Your task to perform on an android device: install app "Yahoo Mail" Image 0: 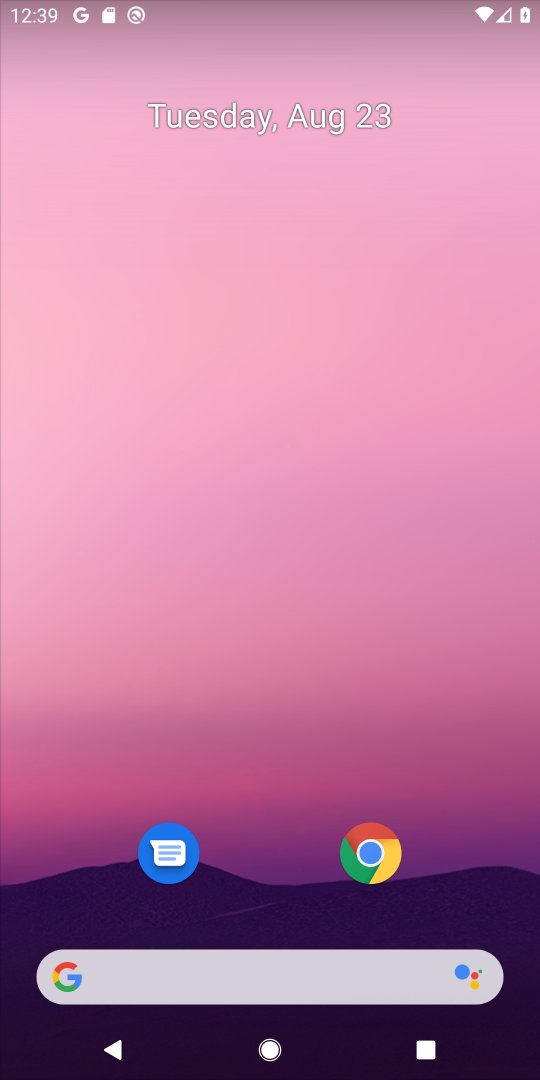
Step 0: drag from (479, 647) to (377, 81)
Your task to perform on an android device: install app "Yahoo Mail" Image 1: 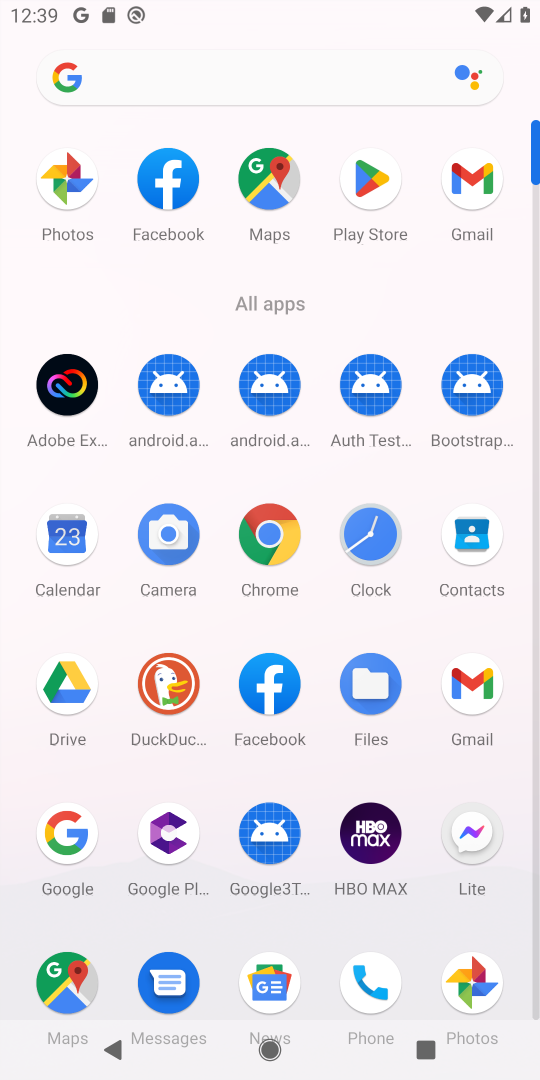
Step 1: drag from (317, 927) to (328, 442)
Your task to perform on an android device: install app "Yahoo Mail" Image 2: 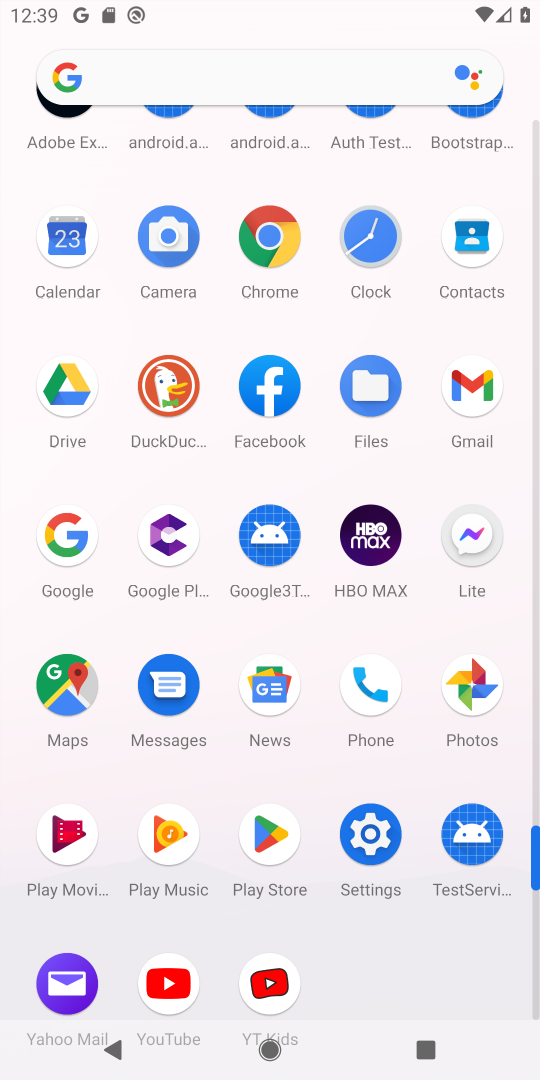
Step 2: click (270, 832)
Your task to perform on an android device: install app "Yahoo Mail" Image 3: 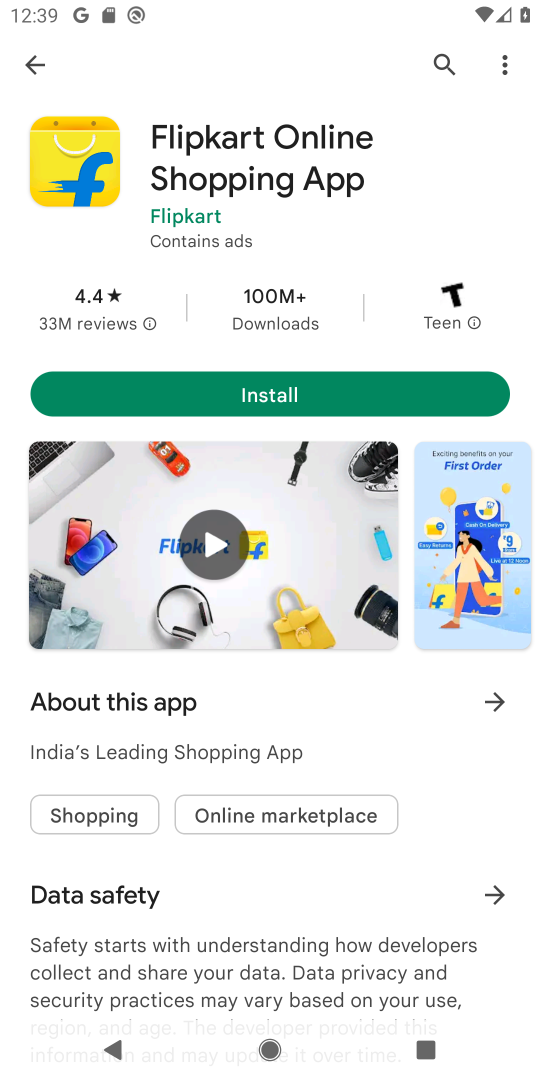
Step 3: click (441, 58)
Your task to perform on an android device: install app "Yahoo Mail" Image 4: 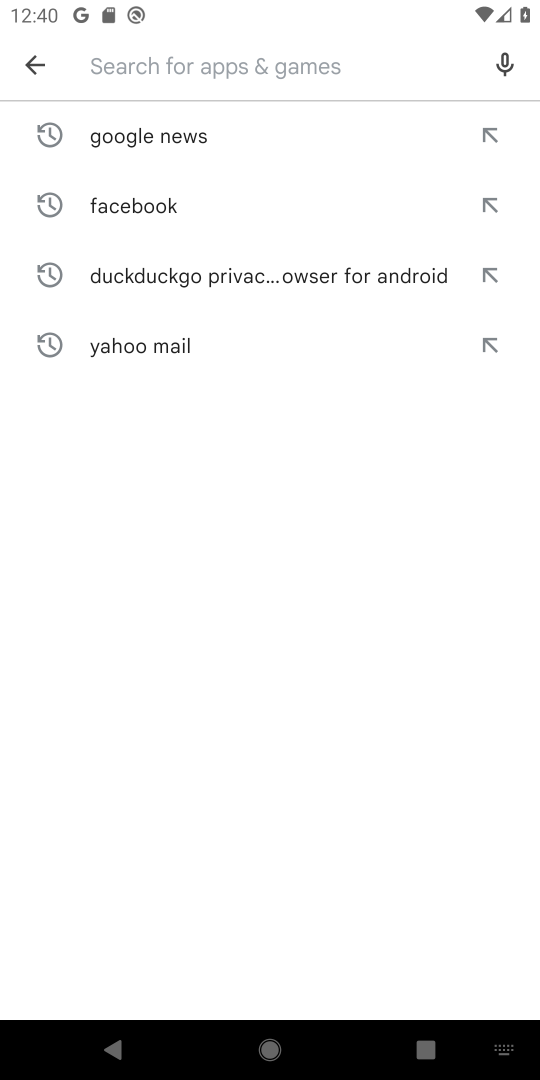
Step 4: type "Yahoo Mail"
Your task to perform on an android device: install app "Yahoo Mail" Image 5: 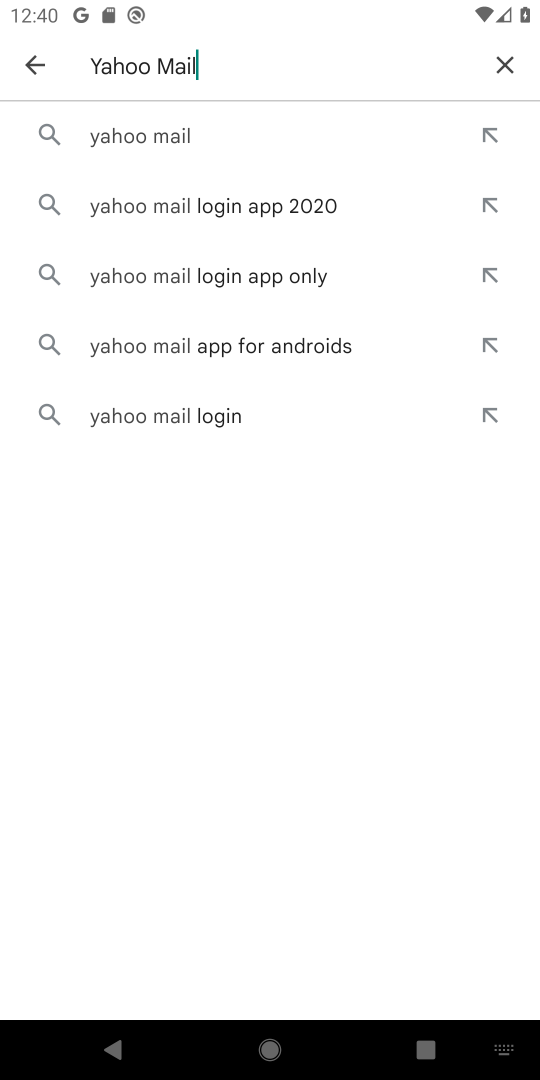
Step 5: click (144, 129)
Your task to perform on an android device: install app "Yahoo Mail" Image 6: 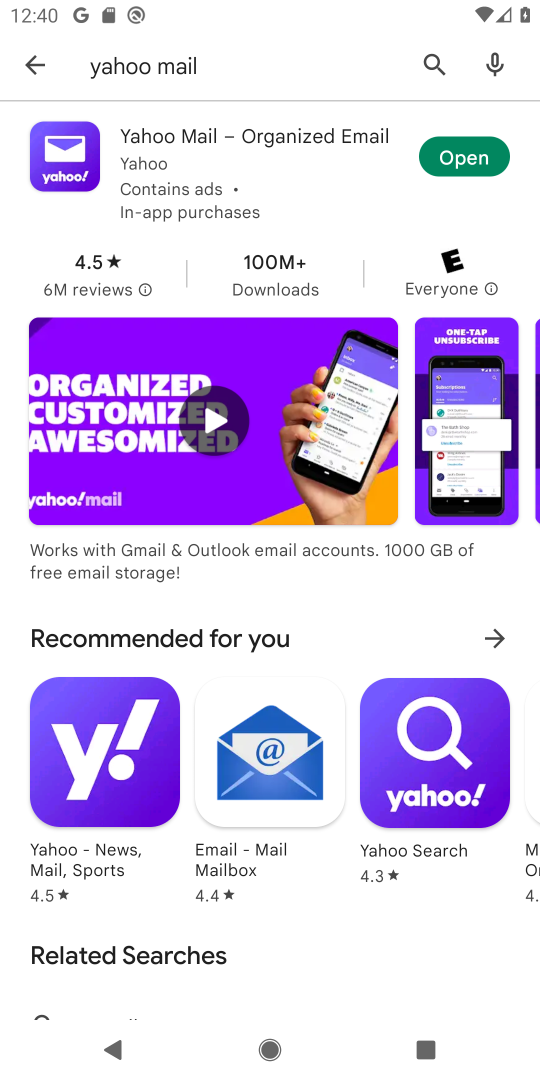
Step 6: task complete